Your task to perform on an android device: Go to location settings Image 0: 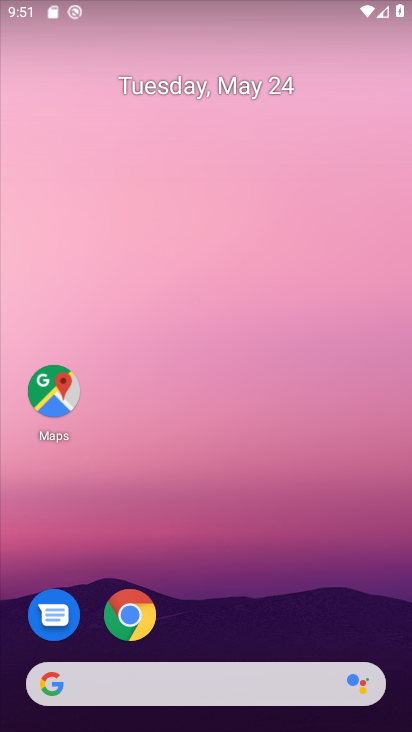
Step 0: drag from (387, 638) to (385, 267)
Your task to perform on an android device: Go to location settings Image 1: 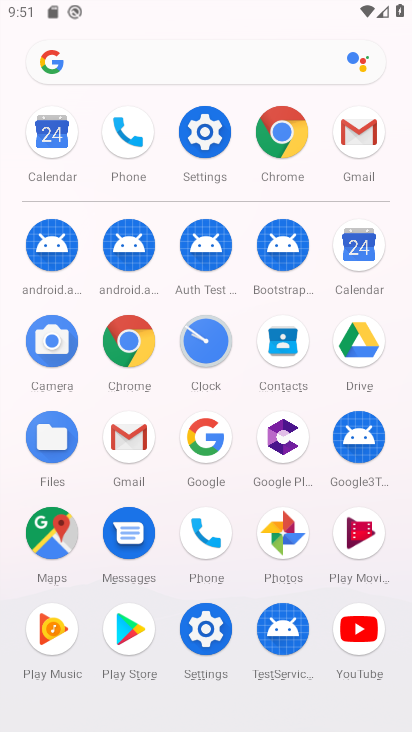
Step 1: click (216, 647)
Your task to perform on an android device: Go to location settings Image 2: 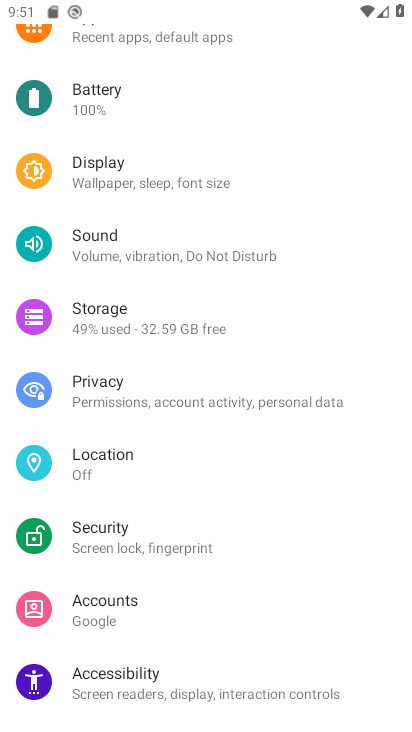
Step 2: drag from (336, 246) to (342, 322)
Your task to perform on an android device: Go to location settings Image 3: 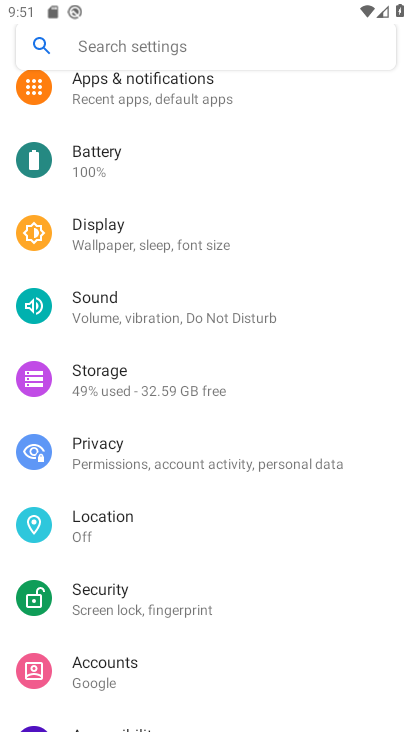
Step 3: drag from (349, 216) to (340, 293)
Your task to perform on an android device: Go to location settings Image 4: 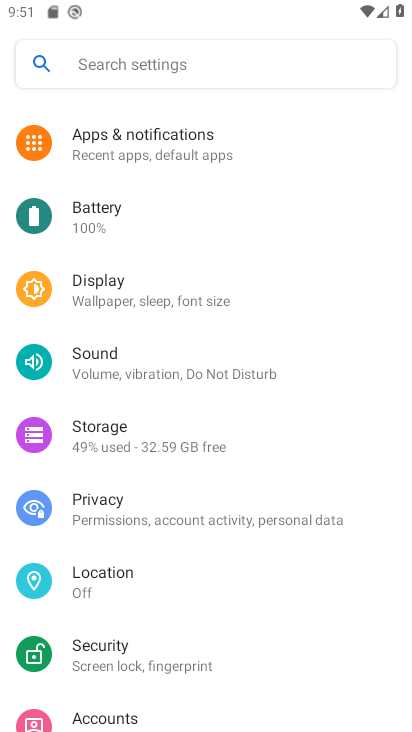
Step 4: drag from (338, 198) to (336, 276)
Your task to perform on an android device: Go to location settings Image 5: 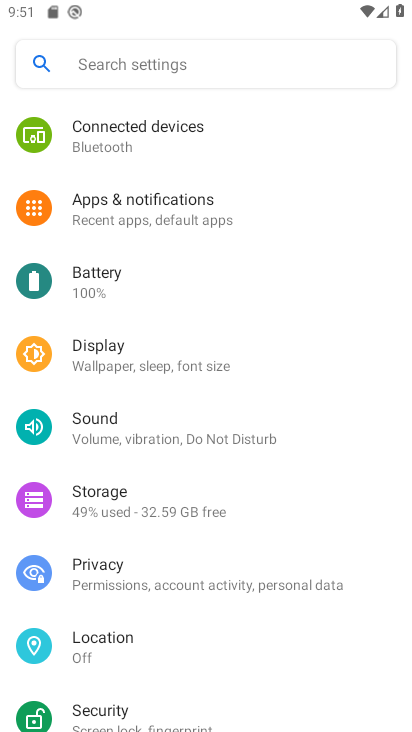
Step 5: drag from (329, 175) to (331, 269)
Your task to perform on an android device: Go to location settings Image 6: 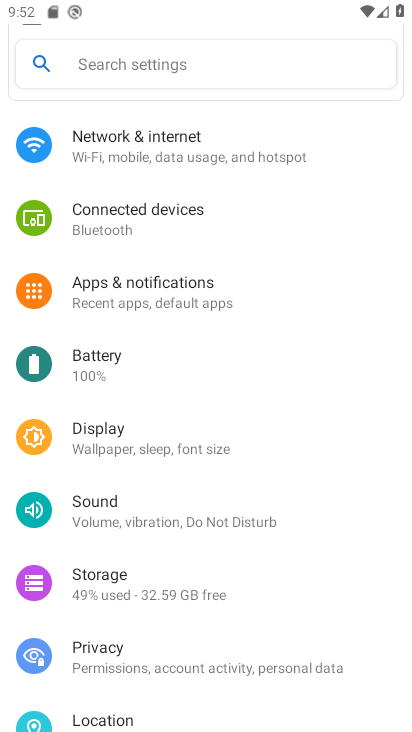
Step 6: drag from (331, 199) to (332, 327)
Your task to perform on an android device: Go to location settings Image 7: 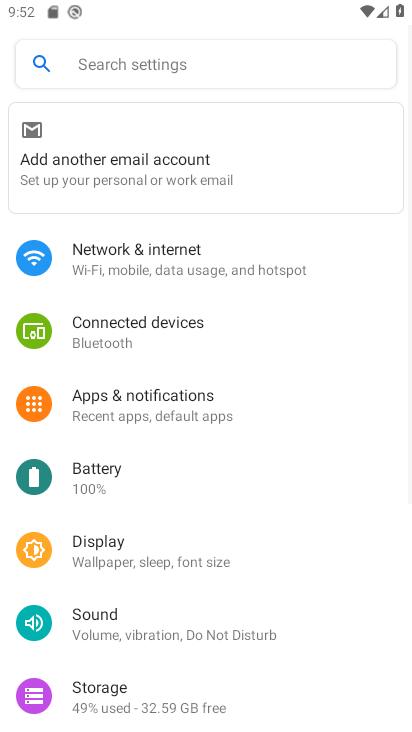
Step 7: drag from (330, 512) to (320, 378)
Your task to perform on an android device: Go to location settings Image 8: 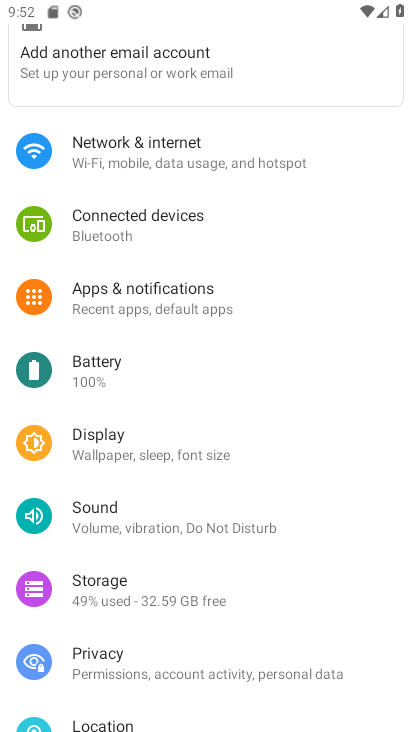
Step 8: drag from (336, 545) to (345, 393)
Your task to perform on an android device: Go to location settings Image 9: 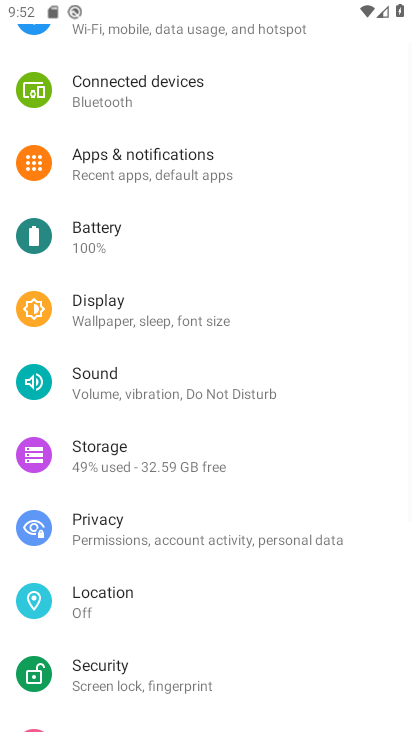
Step 9: drag from (347, 596) to (338, 466)
Your task to perform on an android device: Go to location settings Image 10: 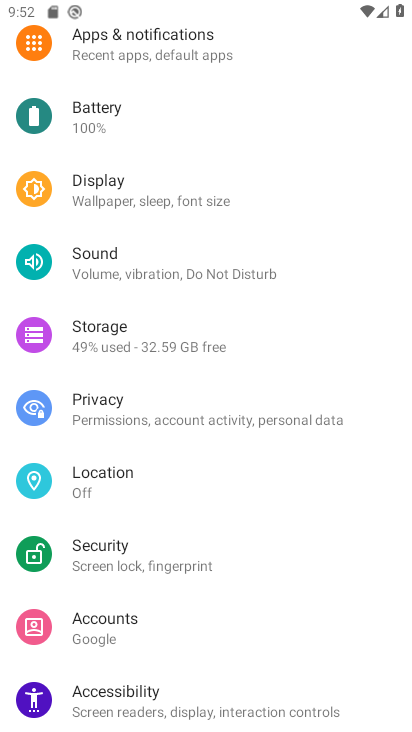
Step 10: drag from (339, 621) to (335, 532)
Your task to perform on an android device: Go to location settings Image 11: 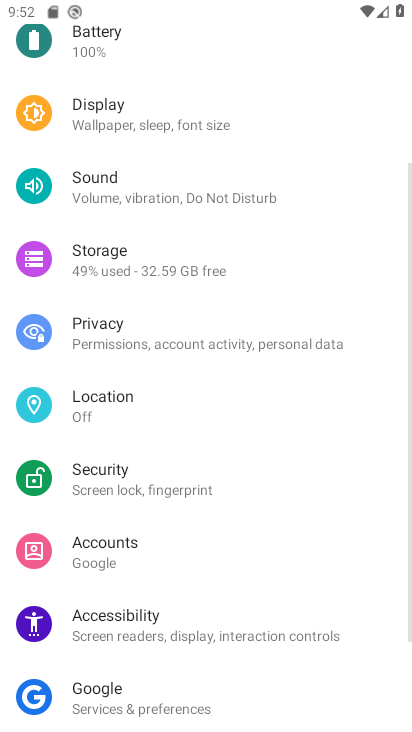
Step 11: drag from (359, 629) to (354, 525)
Your task to perform on an android device: Go to location settings Image 12: 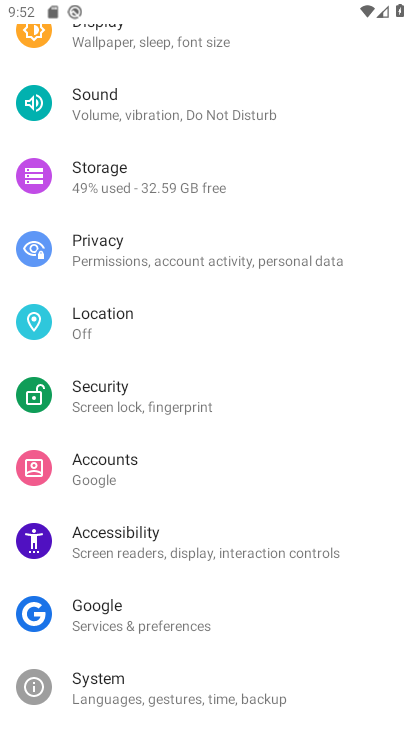
Step 12: click (118, 332)
Your task to perform on an android device: Go to location settings Image 13: 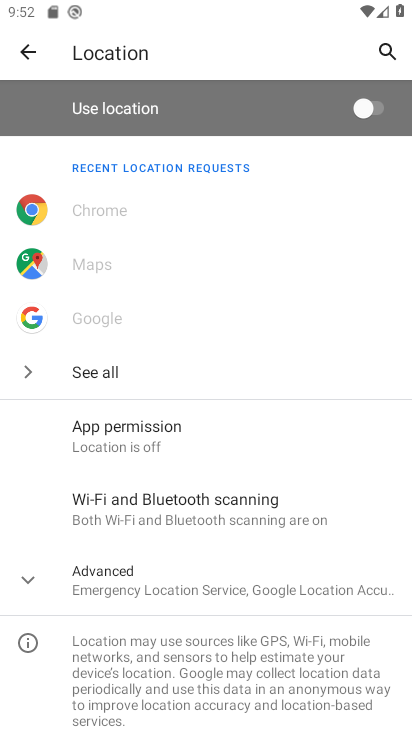
Step 13: task complete